Your task to perform on an android device: Go to privacy settings Image 0: 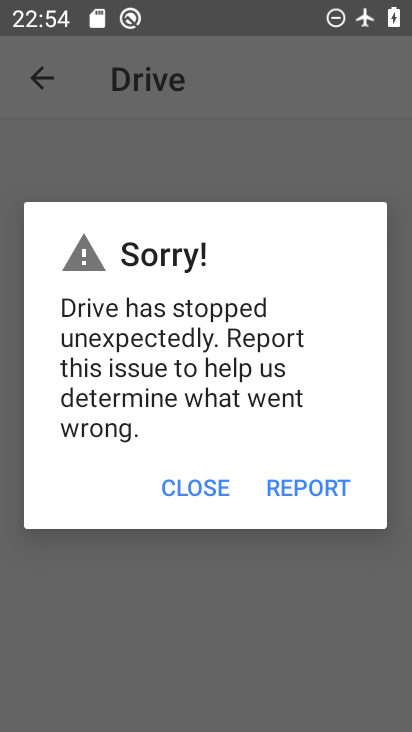
Step 0: press home button
Your task to perform on an android device: Go to privacy settings Image 1: 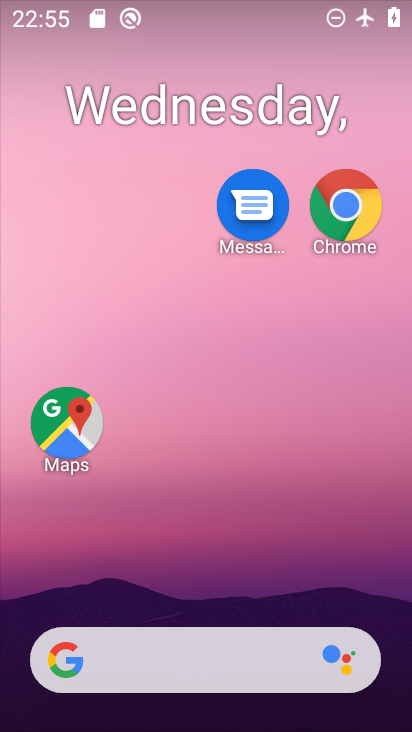
Step 1: drag from (211, 428) to (233, 161)
Your task to perform on an android device: Go to privacy settings Image 2: 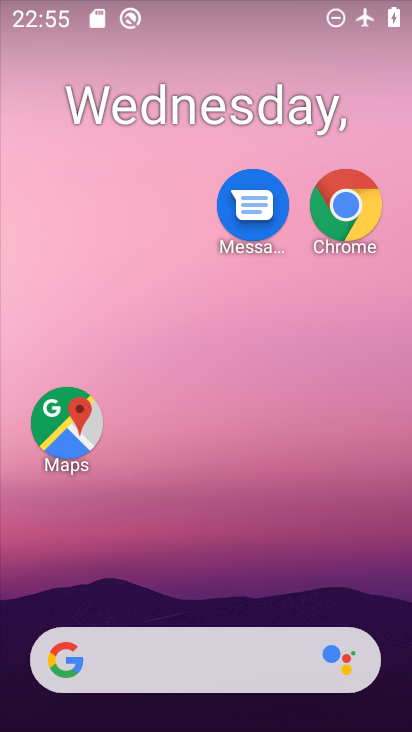
Step 2: drag from (220, 571) to (275, 199)
Your task to perform on an android device: Go to privacy settings Image 3: 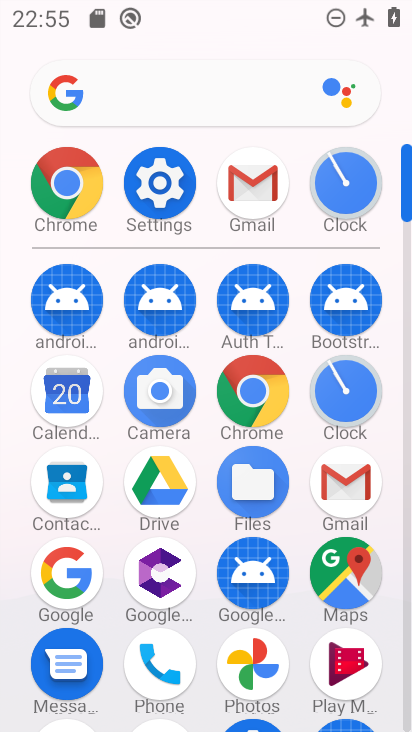
Step 3: click (173, 185)
Your task to perform on an android device: Go to privacy settings Image 4: 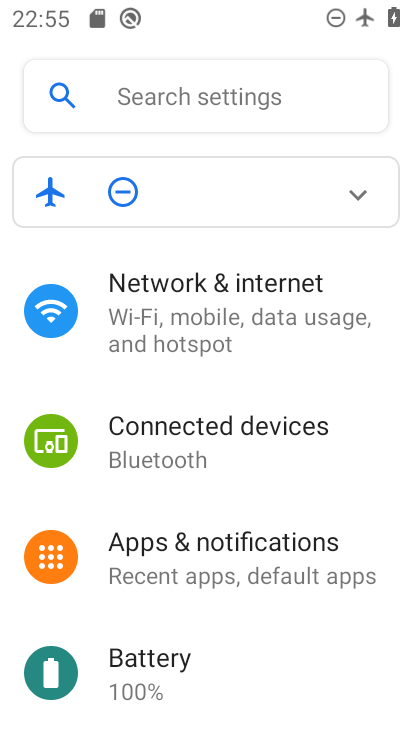
Step 4: drag from (233, 627) to (299, 91)
Your task to perform on an android device: Go to privacy settings Image 5: 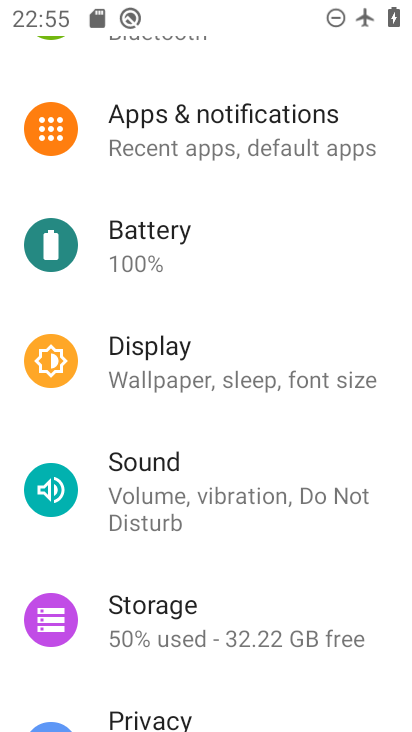
Step 5: drag from (219, 620) to (228, 153)
Your task to perform on an android device: Go to privacy settings Image 6: 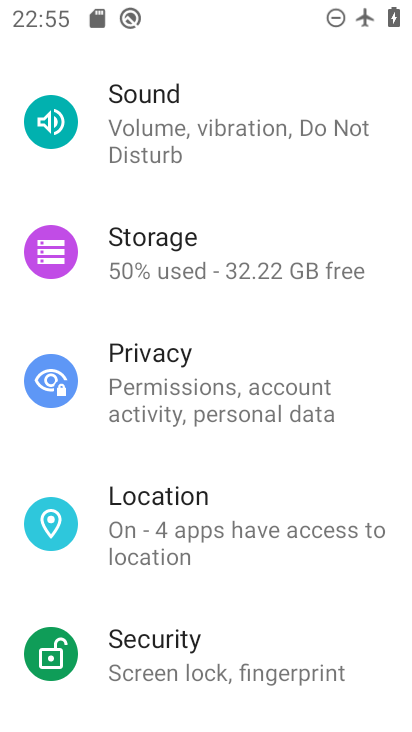
Step 6: click (183, 385)
Your task to perform on an android device: Go to privacy settings Image 7: 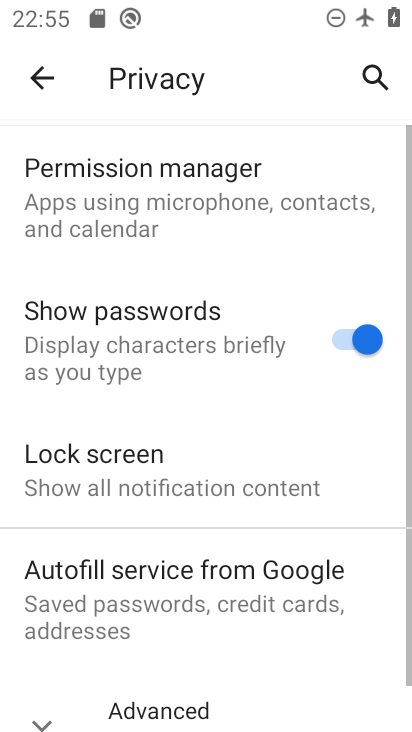
Step 7: task complete